Your task to perform on an android device: toggle notification dots Image 0: 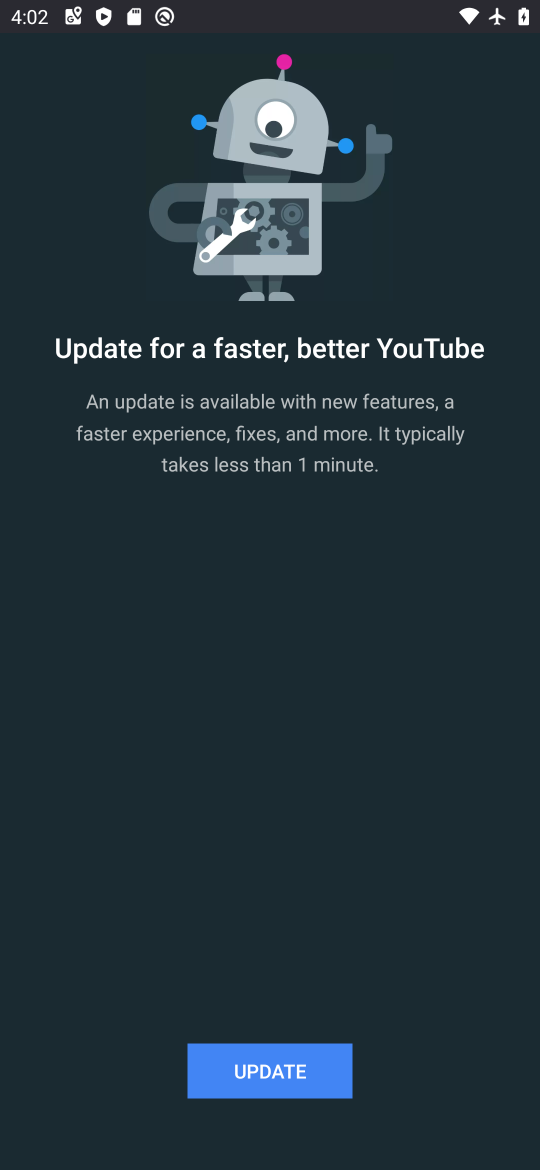
Step 0: press home button
Your task to perform on an android device: toggle notification dots Image 1: 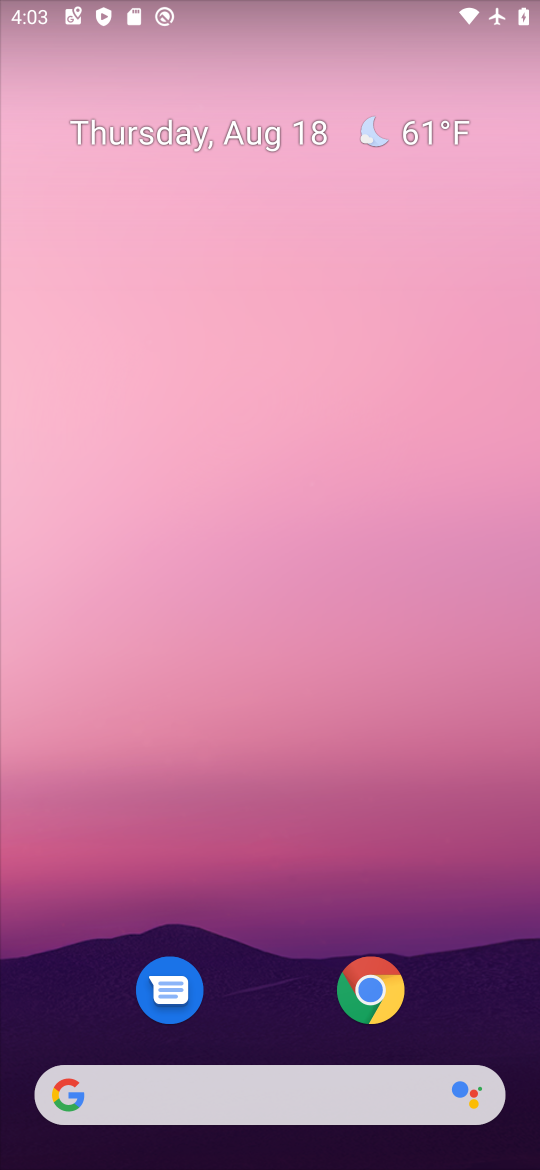
Step 1: click (307, 205)
Your task to perform on an android device: toggle notification dots Image 2: 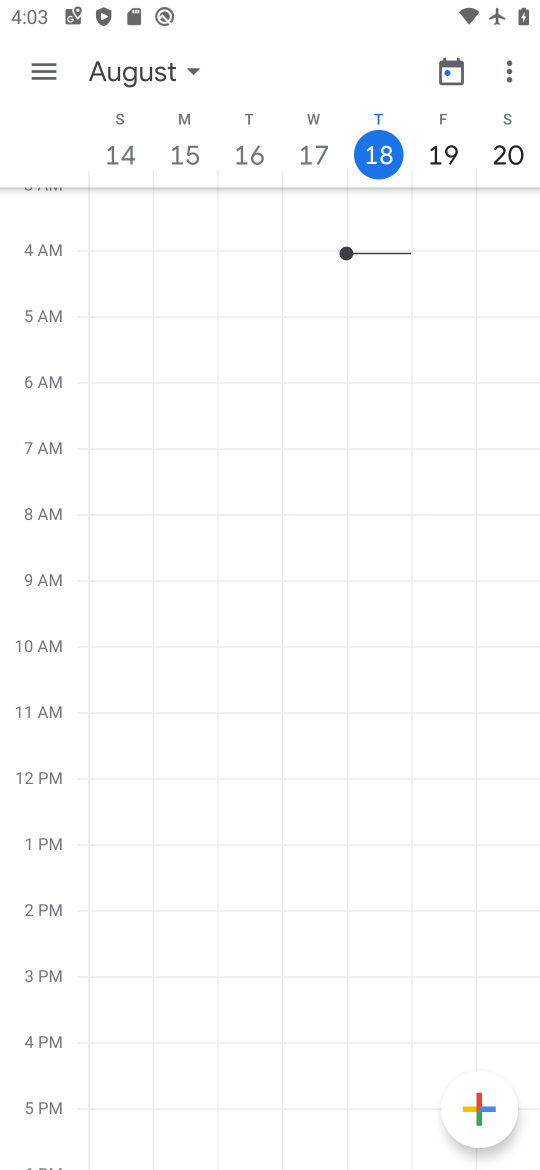
Step 2: press home button
Your task to perform on an android device: toggle notification dots Image 3: 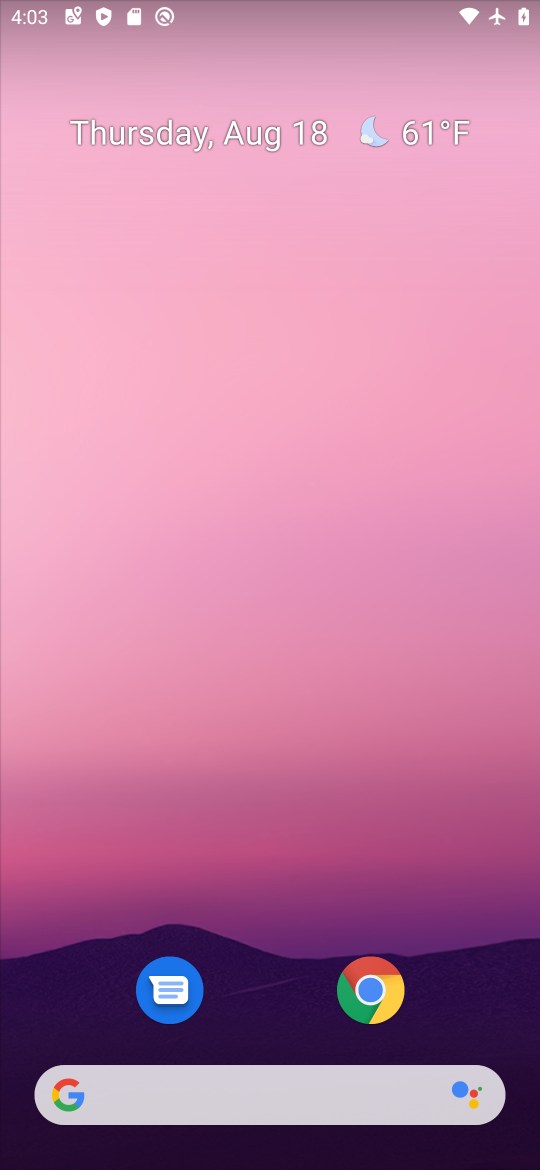
Step 3: drag from (285, 992) to (452, 153)
Your task to perform on an android device: toggle notification dots Image 4: 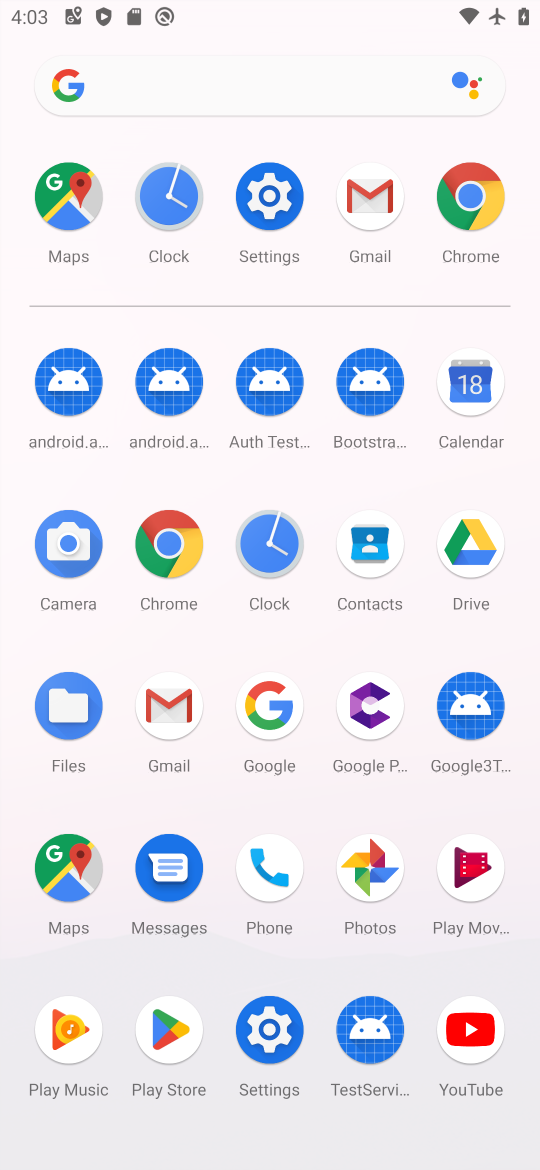
Step 4: click (263, 1041)
Your task to perform on an android device: toggle notification dots Image 5: 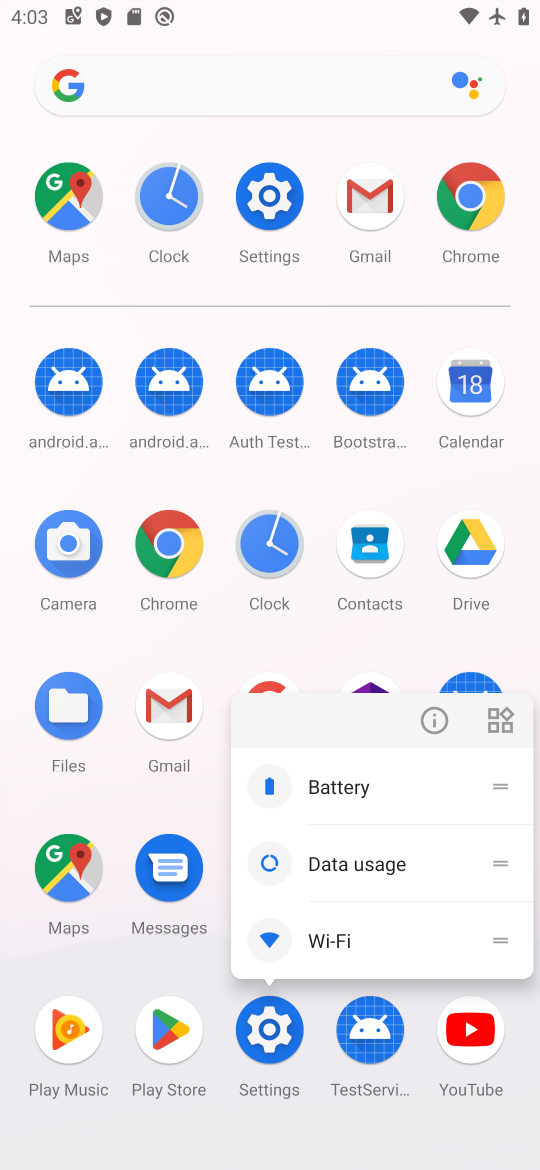
Step 5: click (265, 1029)
Your task to perform on an android device: toggle notification dots Image 6: 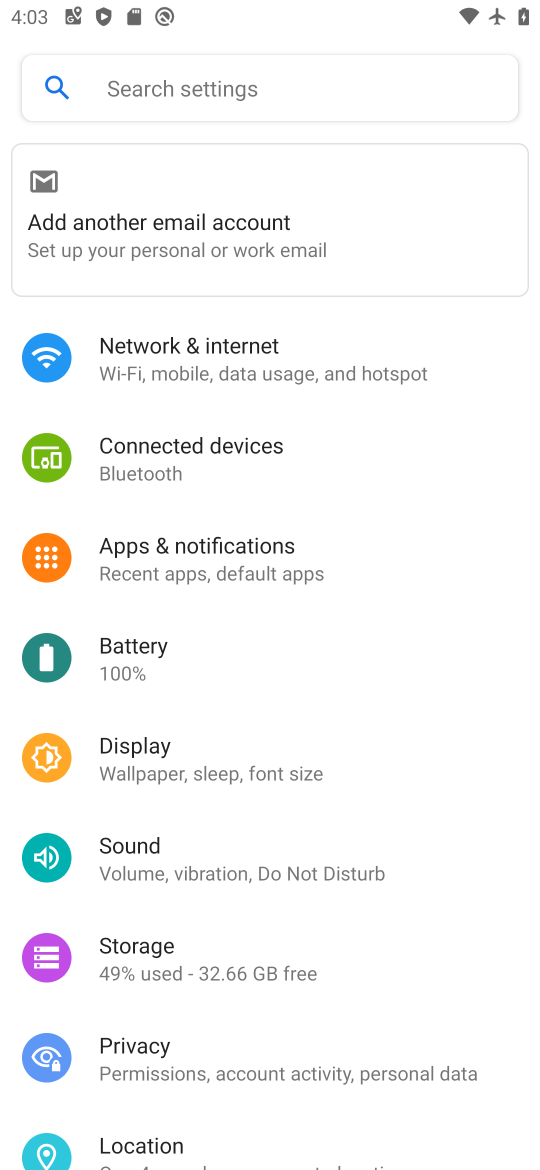
Step 6: click (206, 583)
Your task to perform on an android device: toggle notification dots Image 7: 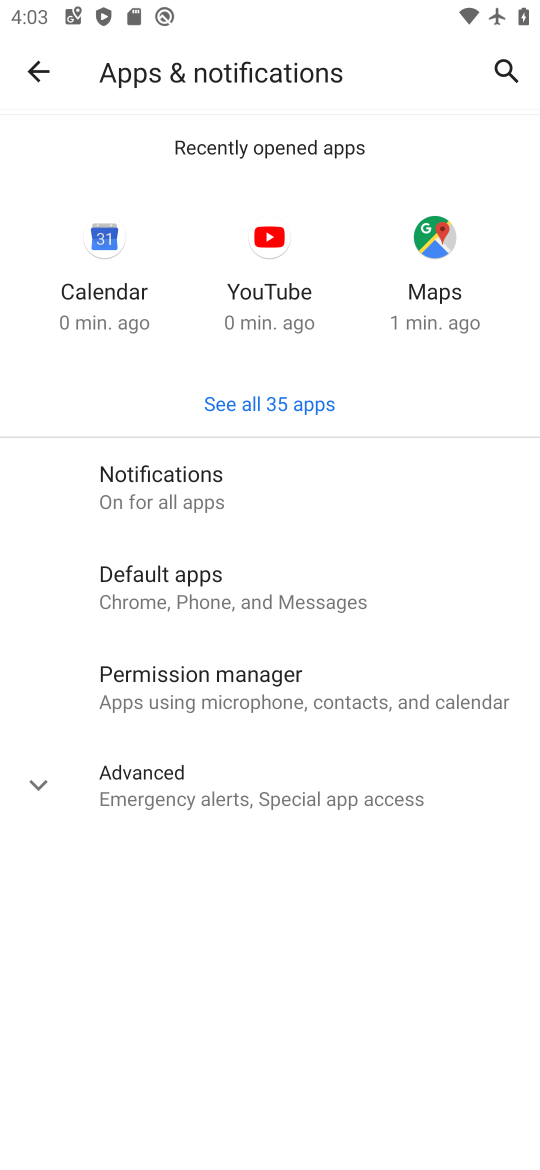
Step 7: click (199, 485)
Your task to perform on an android device: toggle notification dots Image 8: 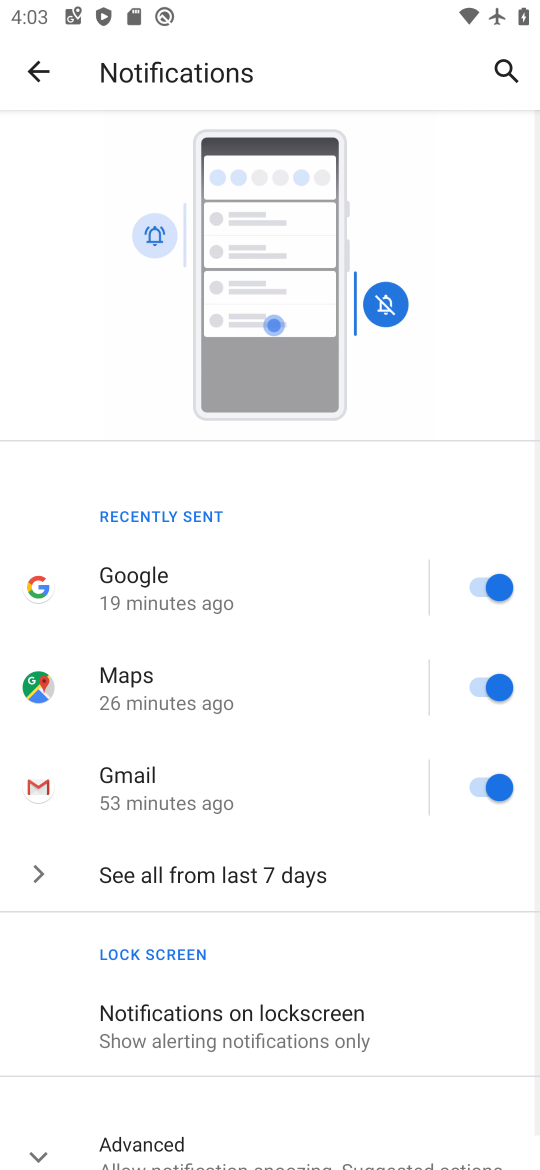
Step 8: drag from (290, 875) to (366, 206)
Your task to perform on an android device: toggle notification dots Image 9: 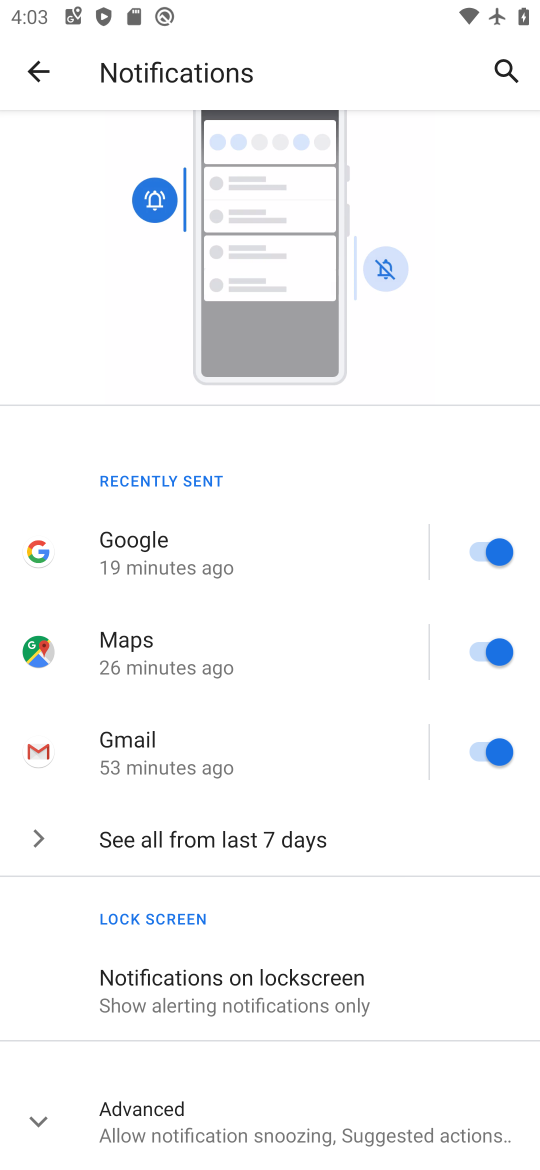
Step 9: click (163, 1100)
Your task to perform on an android device: toggle notification dots Image 10: 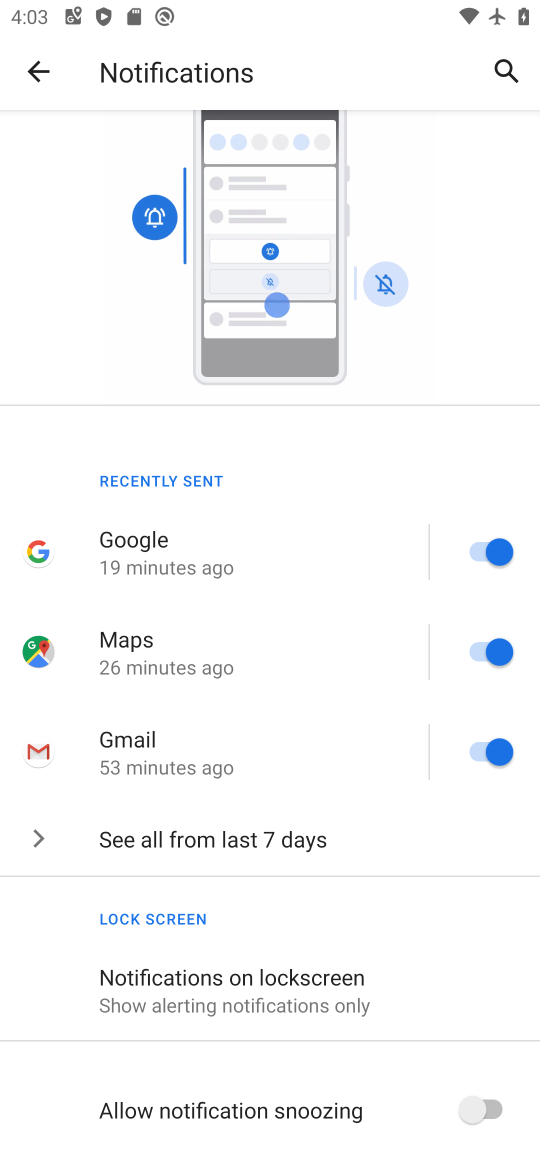
Step 10: drag from (261, 1074) to (333, 395)
Your task to perform on an android device: toggle notification dots Image 11: 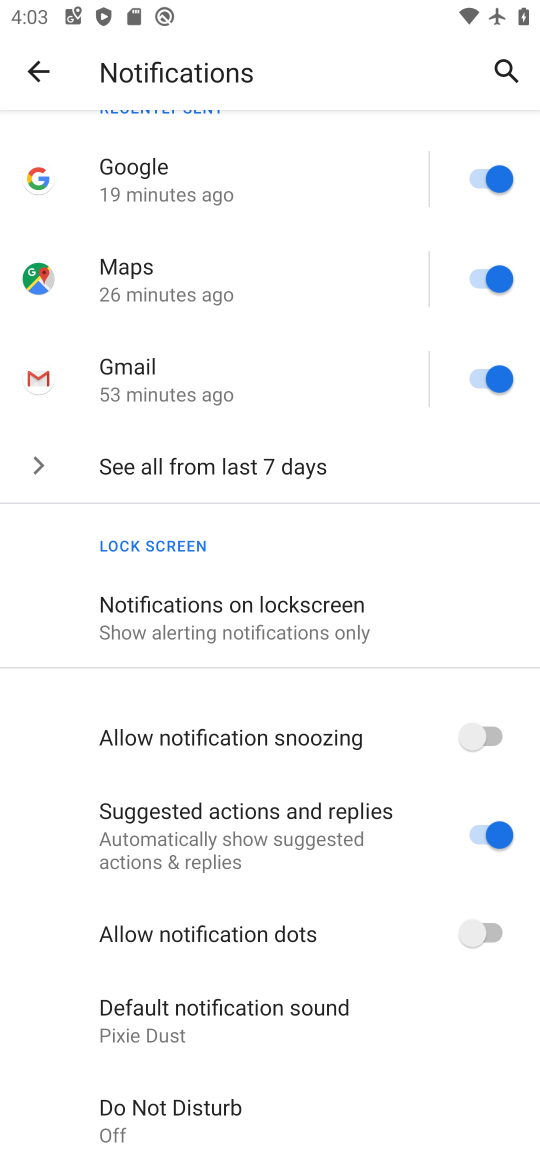
Step 11: click (468, 937)
Your task to perform on an android device: toggle notification dots Image 12: 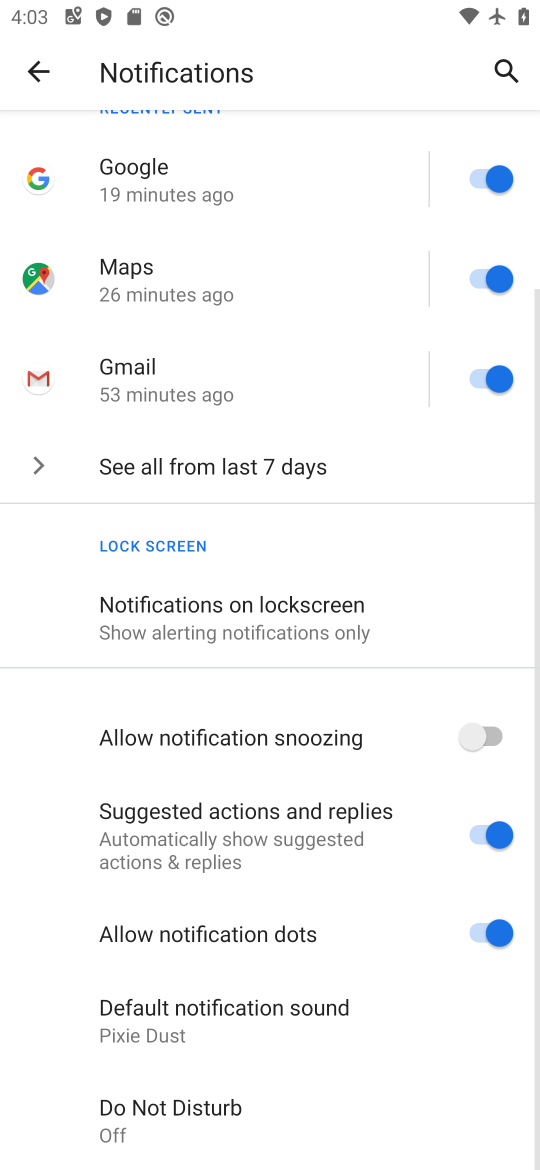
Step 12: task complete